Your task to perform on an android device: Open the calendar and show me this week's events Image 0: 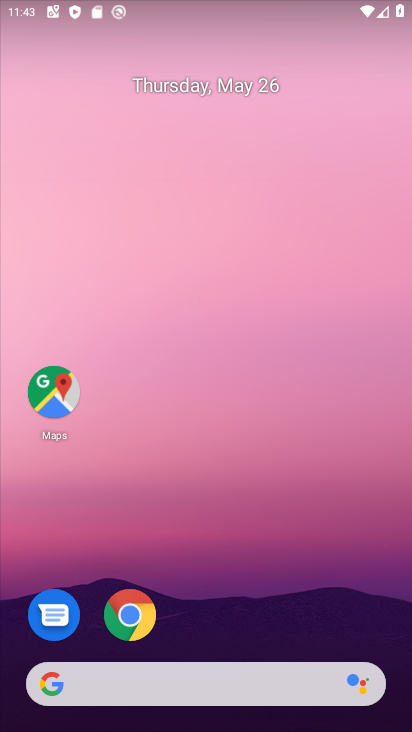
Step 0: drag from (268, 610) to (153, 147)
Your task to perform on an android device: Open the calendar and show me this week's events Image 1: 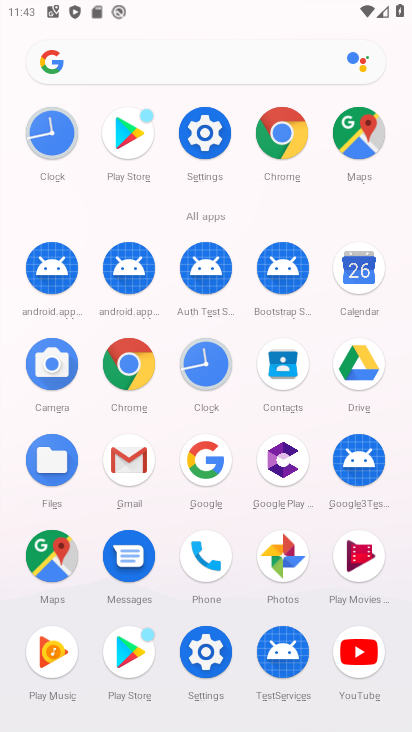
Step 1: click (367, 271)
Your task to perform on an android device: Open the calendar and show me this week's events Image 2: 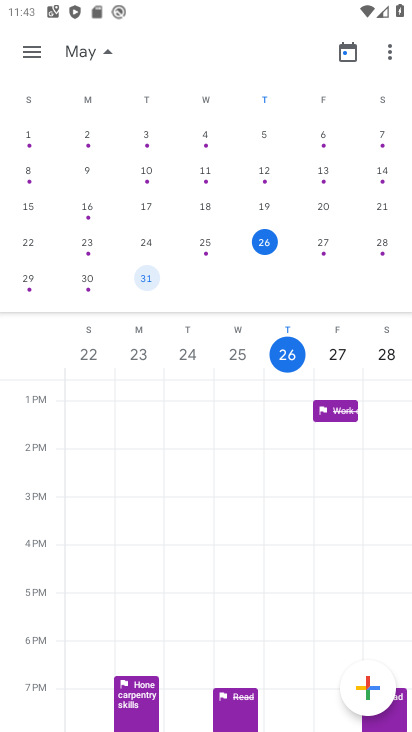
Step 2: click (266, 246)
Your task to perform on an android device: Open the calendar and show me this week's events Image 3: 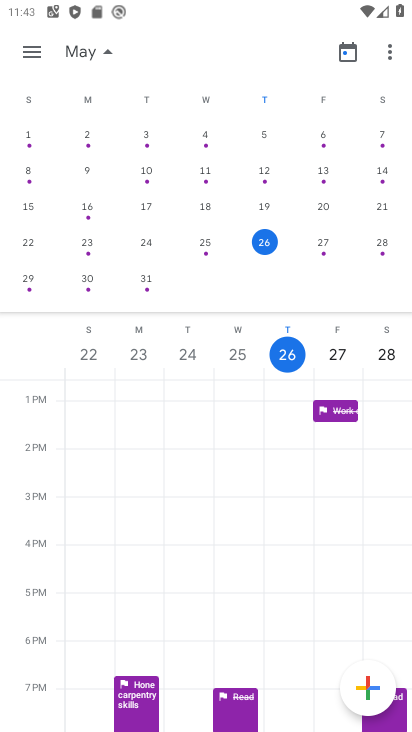
Step 3: task complete